Your task to perform on an android device: turn off location Image 0: 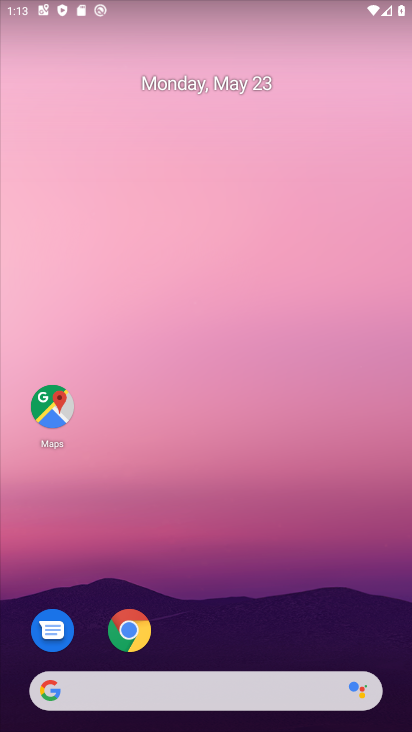
Step 0: drag from (326, 381) to (329, 202)
Your task to perform on an android device: turn off location Image 1: 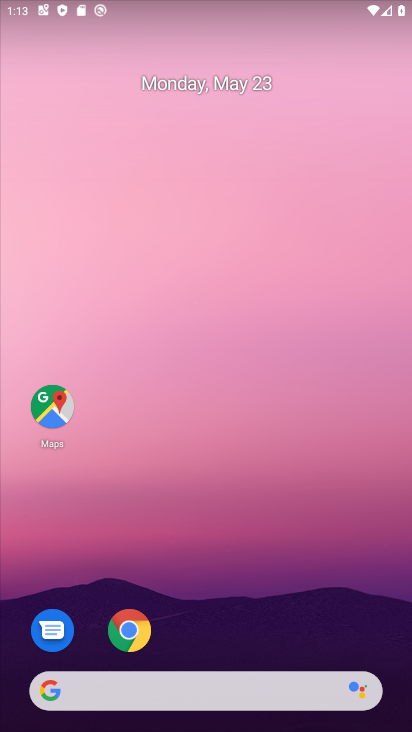
Step 1: drag from (311, 640) to (294, 264)
Your task to perform on an android device: turn off location Image 2: 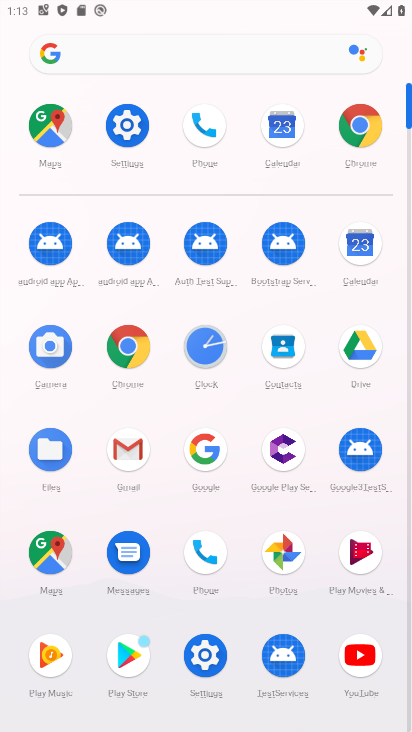
Step 2: click (204, 658)
Your task to perform on an android device: turn off location Image 3: 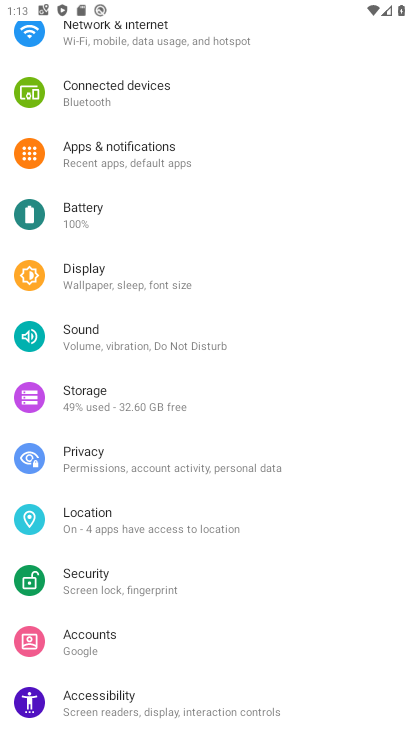
Step 3: click (159, 522)
Your task to perform on an android device: turn off location Image 4: 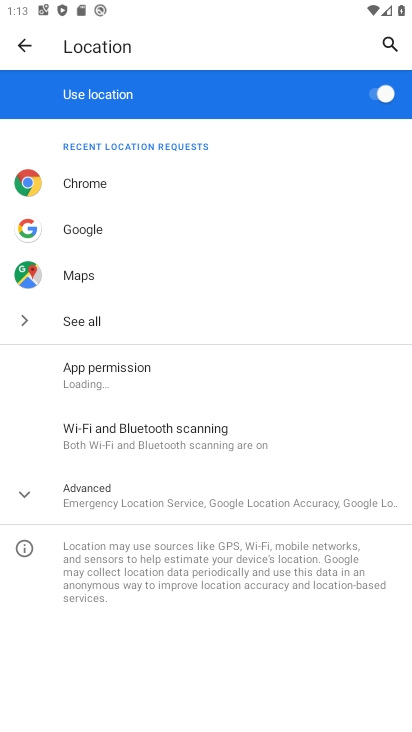
Step 4: click (371, 95)
Your task to perform on an android device: turn off location Image 5: 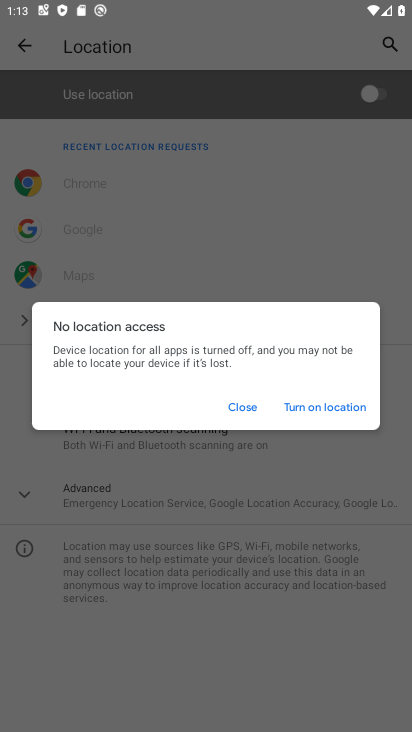
Step 5: task complete